Your task to perform on an android device: turn off priority inbox in the gmail app Image 0: 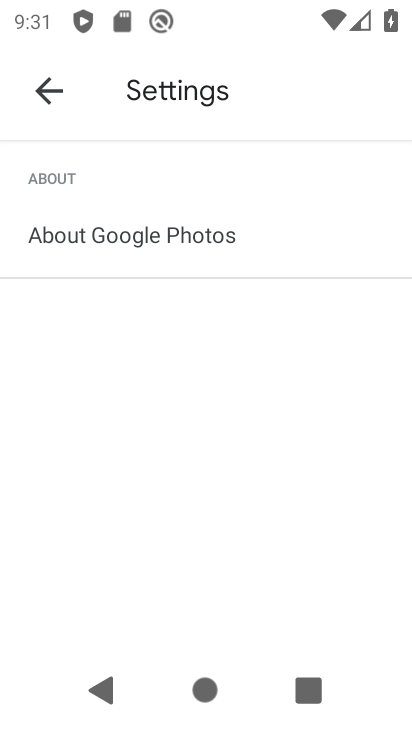
Step 0: press home button
Your task to perform on an android device: turn off priority inbox in the gmail app Image 1: 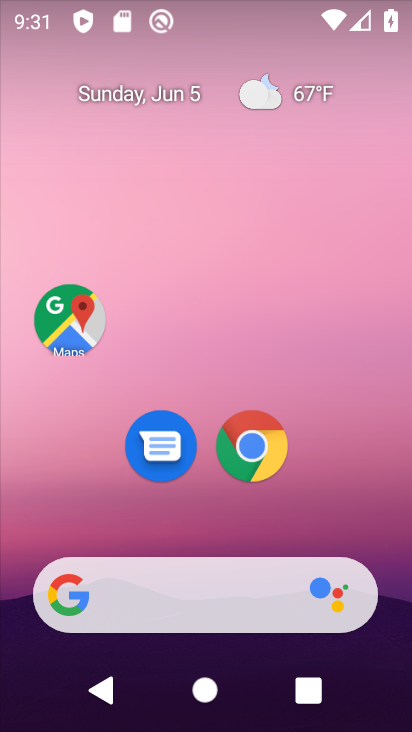
Step 1: drag from (205, 534) to (194, 126)
Your task to perform on an android device: turn off priority inbox in the gmail app Image 2: 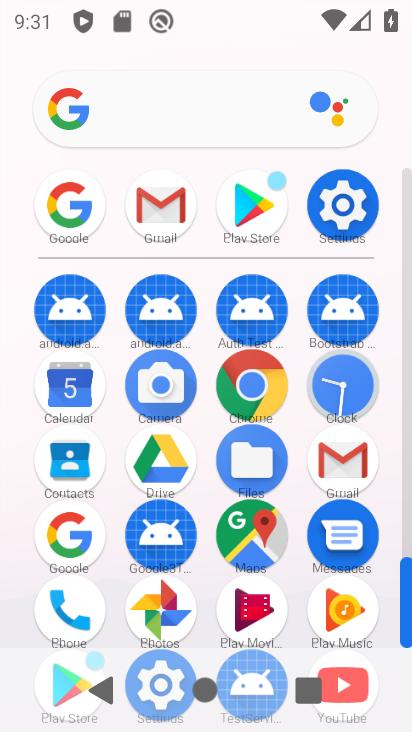
Step 2: click (159, 195)
Your task to perform on an android device: turn off priority inbox in the gmail app Image 3: 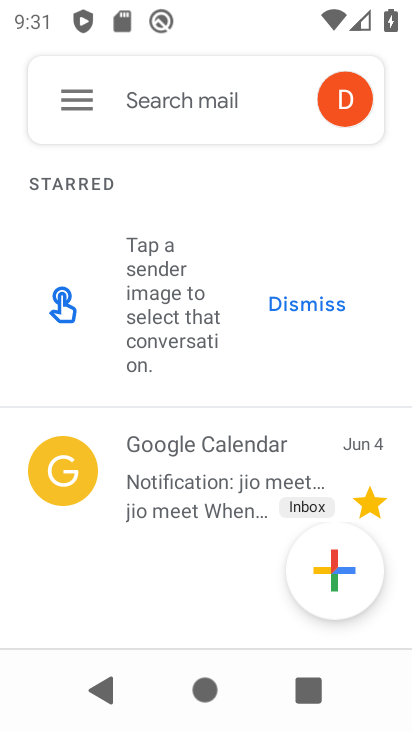
Step 3: click (73, 105)
Your task to perform on an android device: turn off priority inbox in the gmail app Image 4: 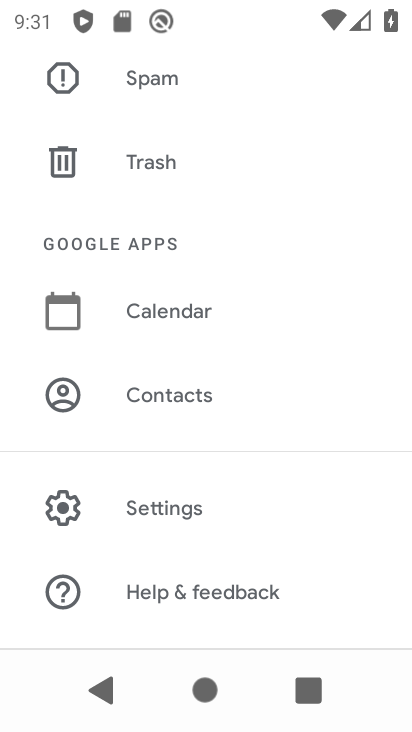
Step 4: click (203, 510)
Your task to perform on an android device: turn off priority inbox in the gmail app Image 5: 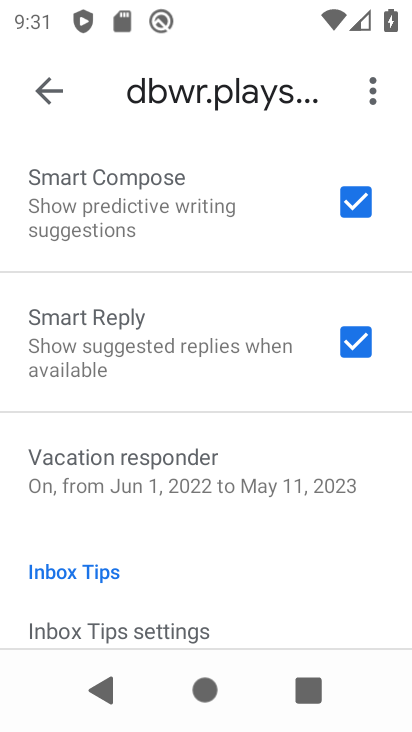
Step 5: drag from (224, 572) to (191, 215)
Your task to perform on an android device: turn off priority inbox in the gmail app Image 6: 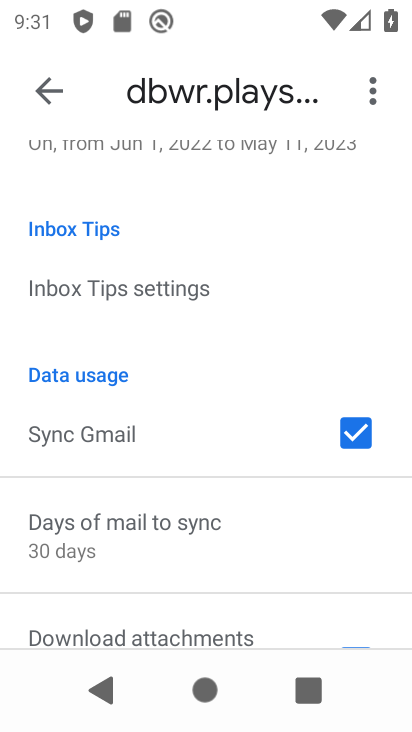
Step 6: click (197, 548)
Your task to perform on an android device: turn off priority inbox in the gmail app Image 7: 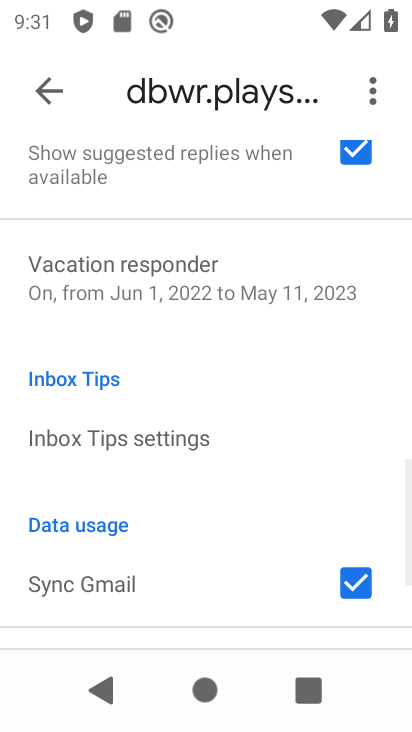
Step 7: drag from (202, 228) to (188, 584)
Your task to perform on an android device: turn off priority inbox in the gmail app Image 8: 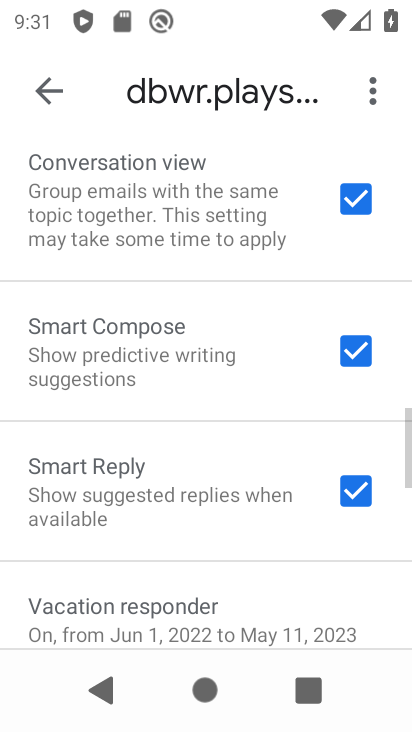
Step 8: drag from (198, 246) to (192, 555)
Your task to perform on an android device: turn off priority inbox in the gmail app Image 9: 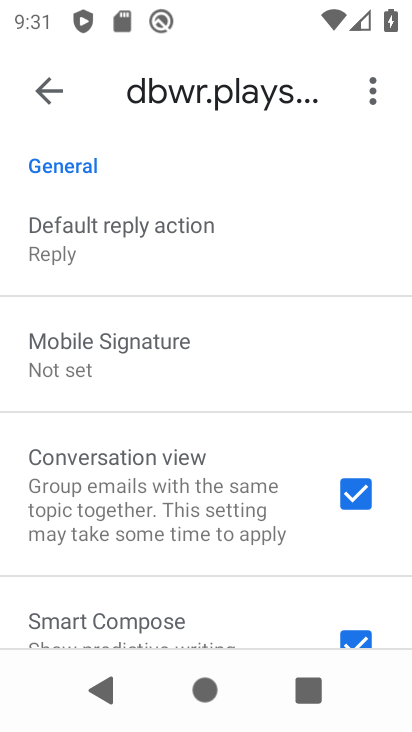
Step 9: drag from (197, 284) to (197, 542)
Your task to perform on an android device: turn off priority inbox in the gmail app Image 10: 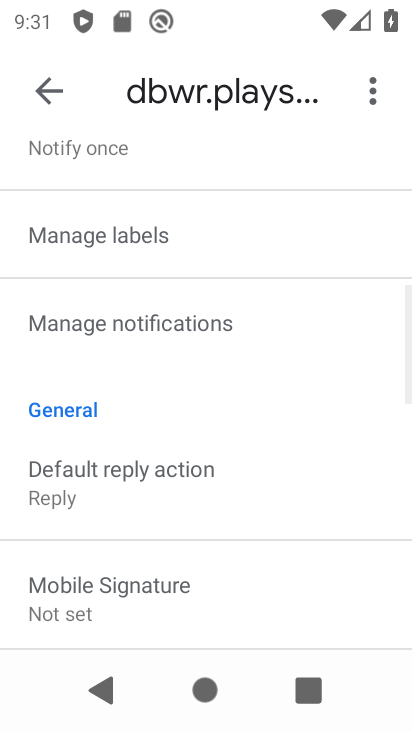
Step 10: drag from (206, 247) to (195, 532)
Your task to perform on an android device: turn off priority inbox in the gmail app Image 11: 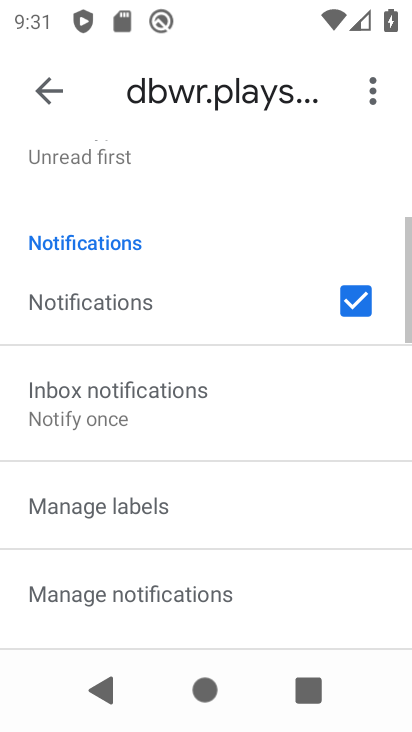
Step 11: drag from (208, 201) to (208, 513)
Your task to perform on an android device: turn off priority inbox in the gmail app Image 12: 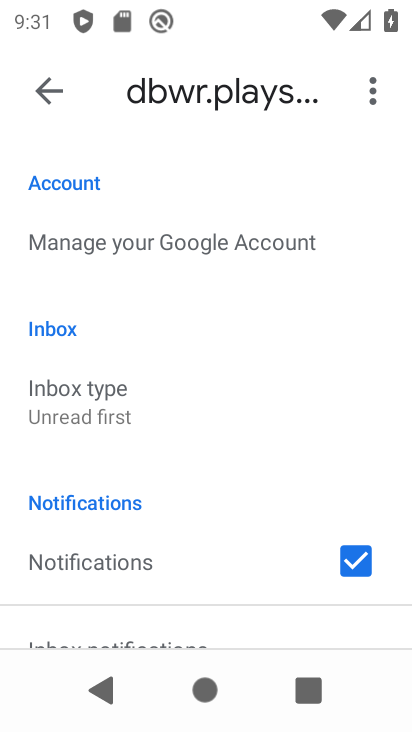
Step 12: click (174, 393)
Your task to perform on an android device: turn off priority inbox in the gmail app Image 13: 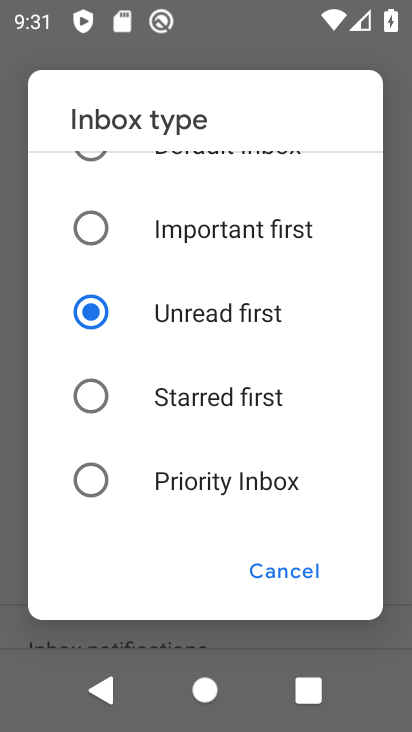
Step 13: task complete